Your task to perform on an android device: Go to network settings Image 0: 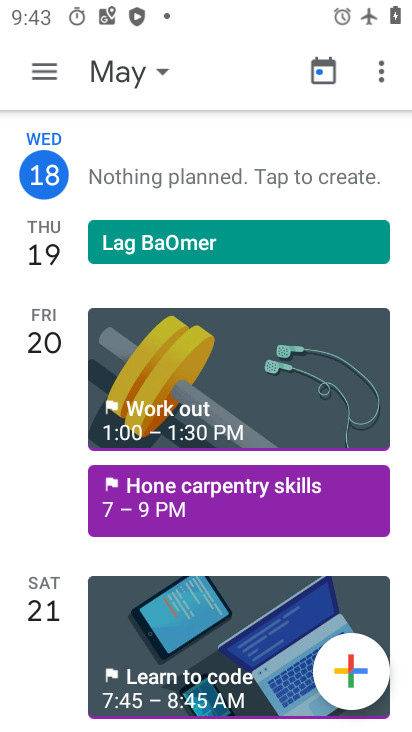
Step 0: press home button
Your task to perform on an android device: Go to network settings Image 1: 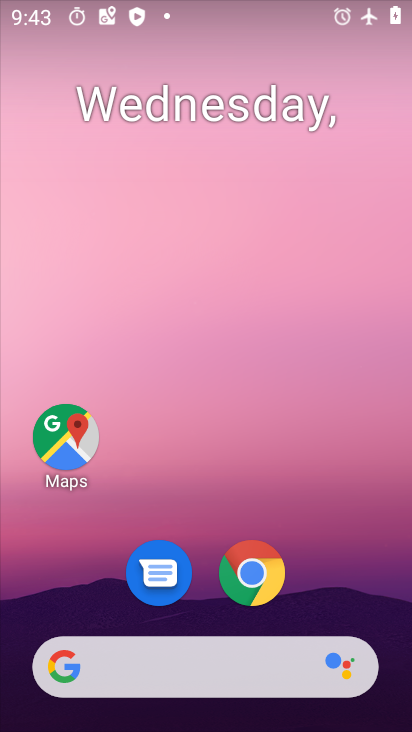
Step 1: drag from (331, 613) to (364, 256)
Your task to perform on an android device: Go to network settings Image 2: 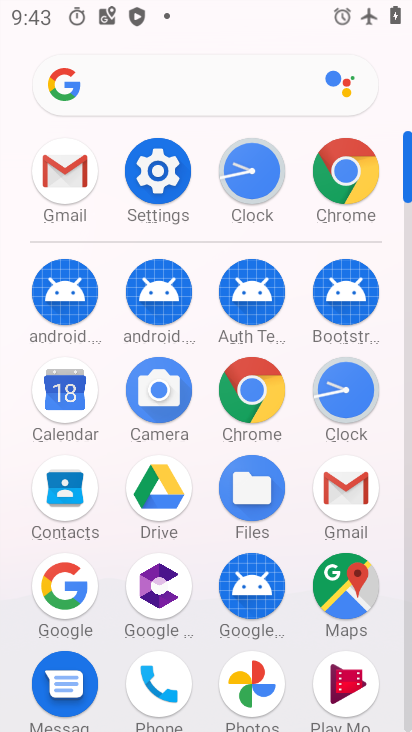
Step 2: click (174, 179)
Your task to perform on an android device: Go to network settings Image 3: 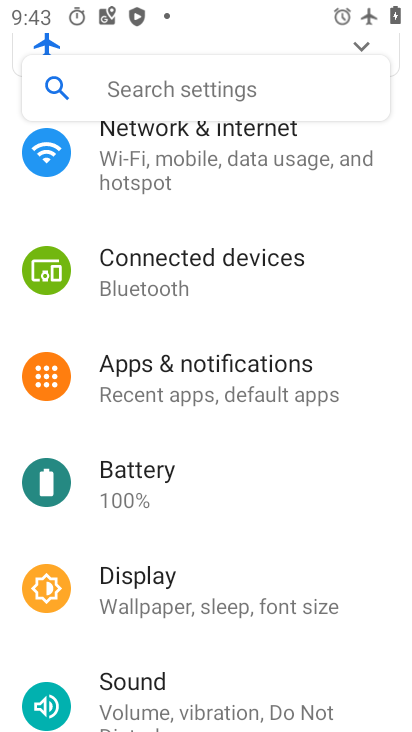
Step 3: drag from (197, 181) to (140, 558)
Your task to perform on an android device: Go to network settings Image 4: 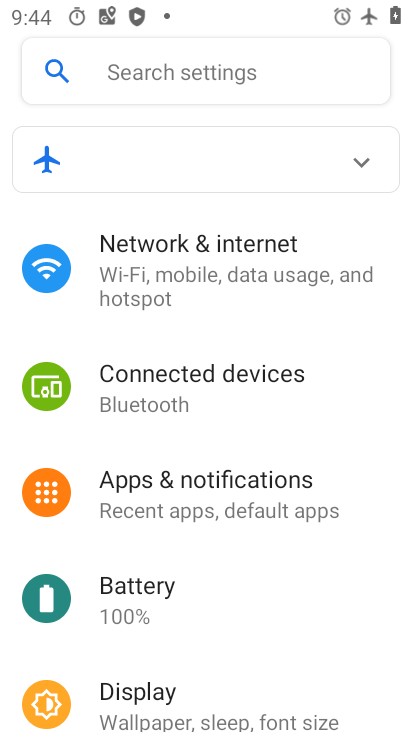
Step 4: click (228, 267)
Your task to perform on an android device: Go to network settings Image 5: 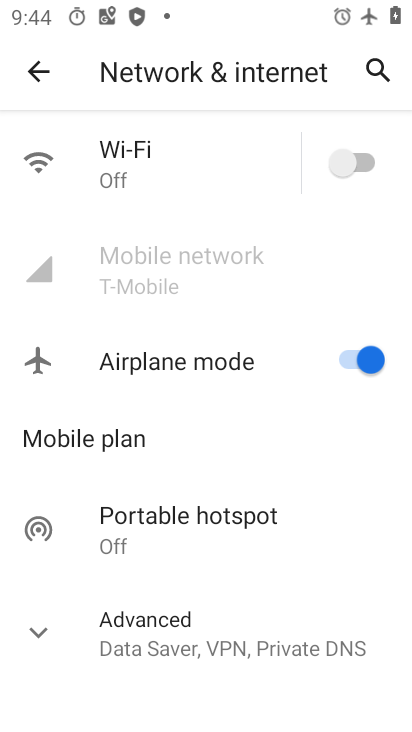
Step 5: click (196, 267)
Your task to perform on an android device: Go to network settings Image 6: 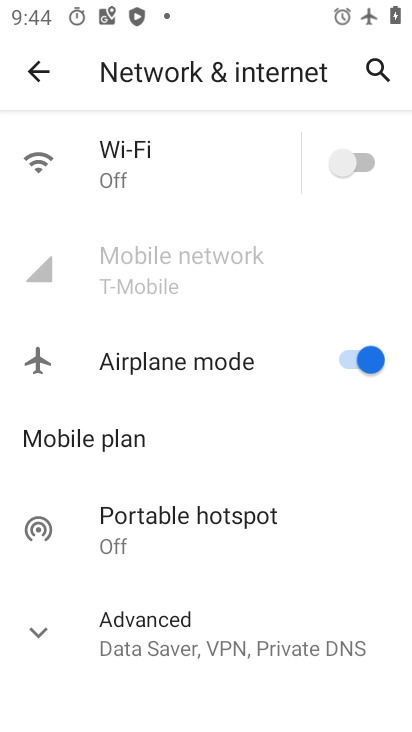
Step 6: task complete